Your task to perform on an android device: Is it going to rain tomorrow? Image 0: 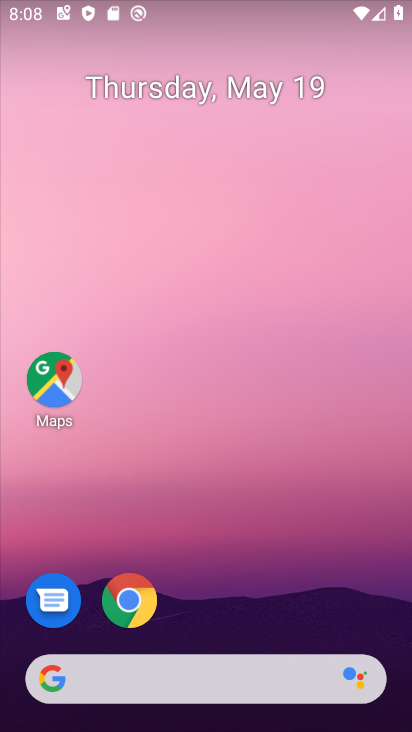
Step 0: click (107, 684)
Your task to perform on an android device: Is it going to rain tomorrow? Image 1: 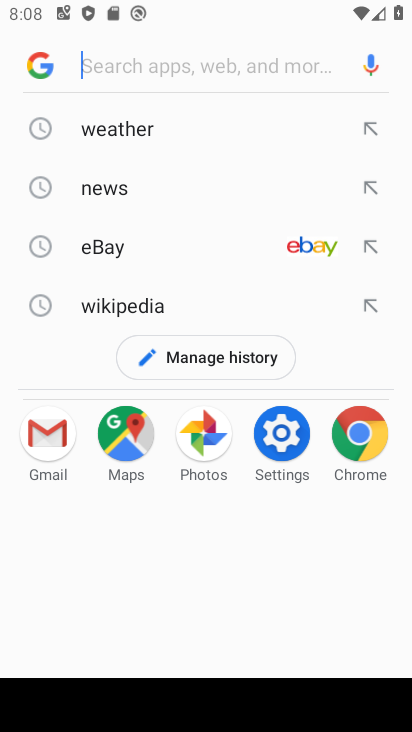
Step 1: click (98, 132)
Your task to perform on an android device: Is it going to rain tomorrow? Image 2: 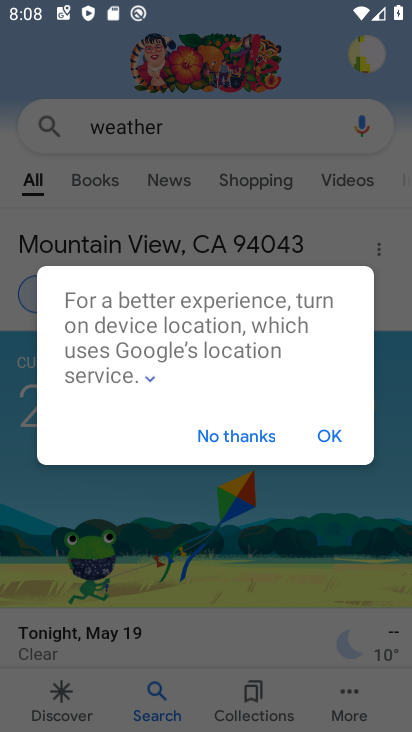
Step 2: click (213, 437)
Your task to perform on an android device: Is it going to rain tomorrow? Image 3: 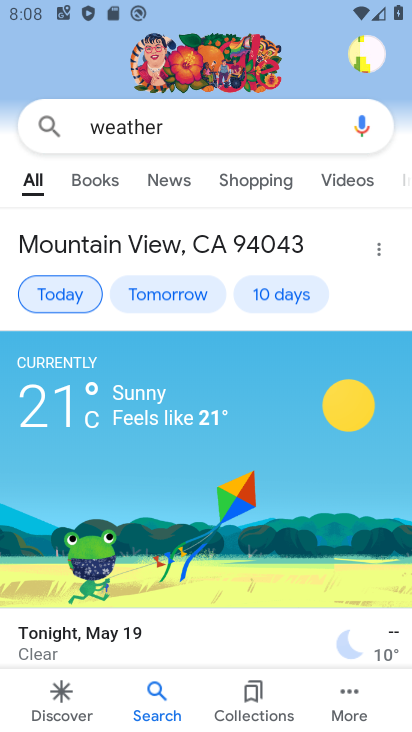
Step 3: task complete